Your task to perform on an android device: Open Chrome and go to settings Image 0: 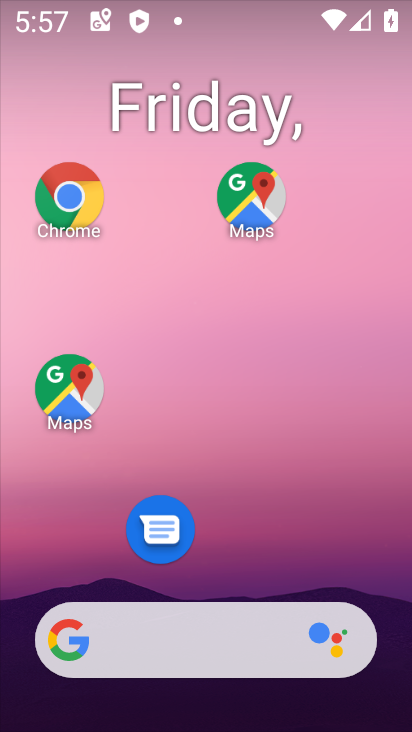
Step 0: click (70, 209)
Your task to perform on an android device: Open Chrome and go to settings Image 1: 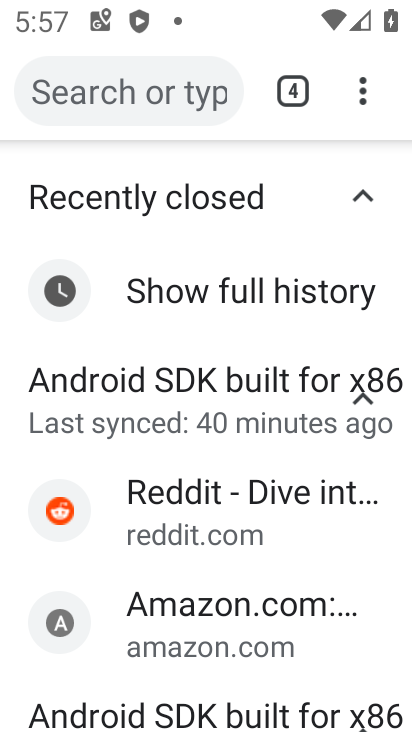
Step 1: press home button
Your task to perform on an android device: Open Chrome and go to settings Image 2: 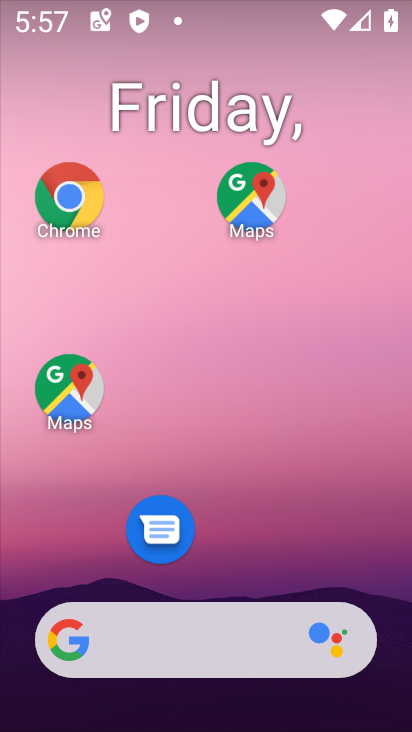
Step 2: click (76, 204)
Your task to perform on an android device: Open Chrome and go to settings Image 3: 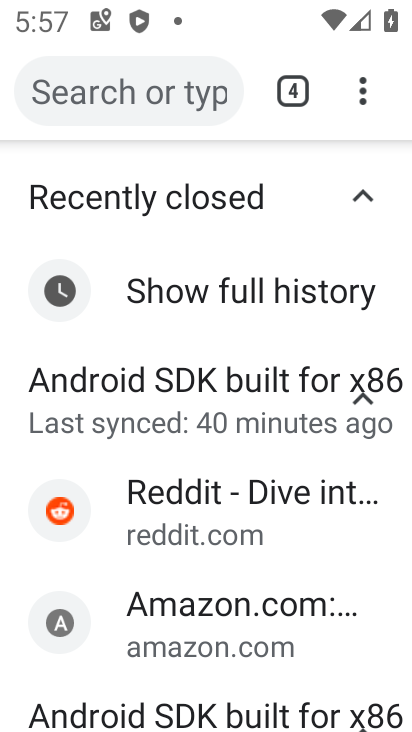
Step 3: click (364, 91)
Your task to perform on an android device: Open Chrome and go to settings Image 4: 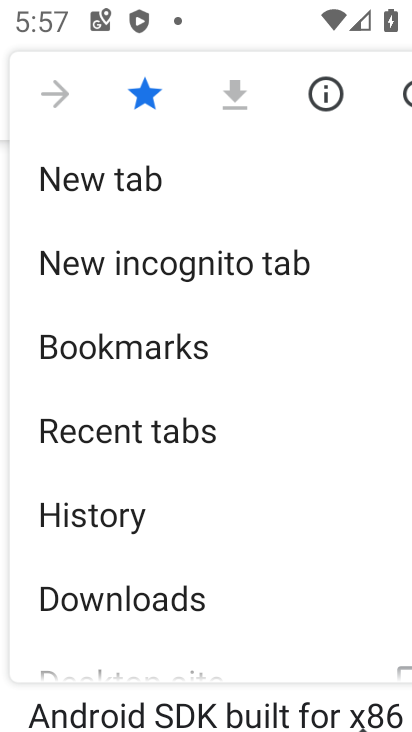
Step 4: drag from (149, 594) to (151, 279)
Your task to perform on an android device: Open Chrome and go to settings Image 5: 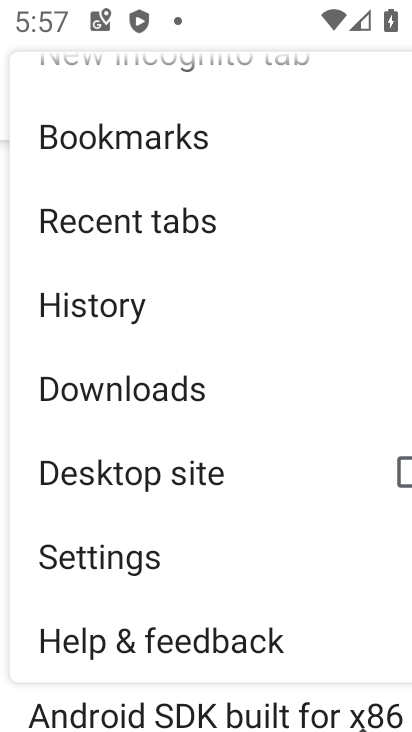
Step 5: click (133, 555)
Your task to perform on an android device: Open Chrome and go to settings Image 6: 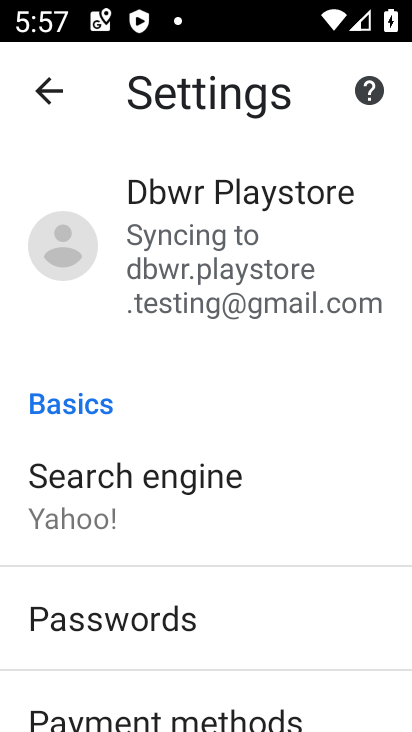
Step 6: task complete